Your task to perform on an android device: Open Wikipedia Image 0: 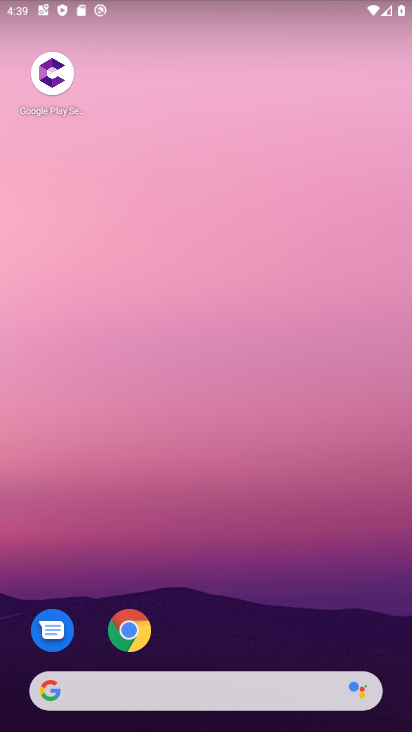
Step 0: drag from (232, 608) to (230, 225)
Your task to perform on an android device: Open Wikipedia Image 1: 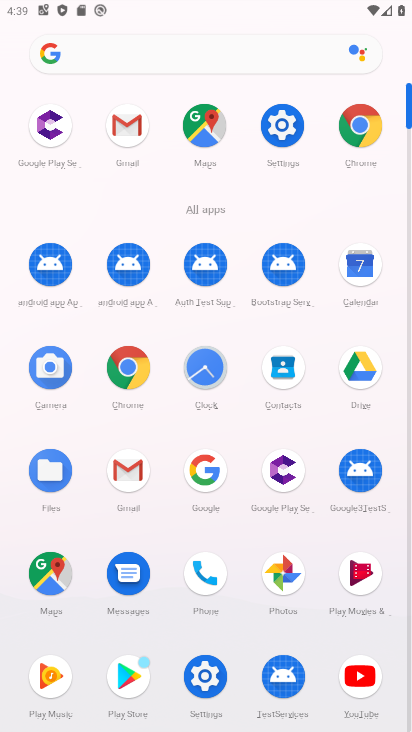
Step 1: click (363, 118)
Your task to perform on an android device: Open Wikipedia Image 2: 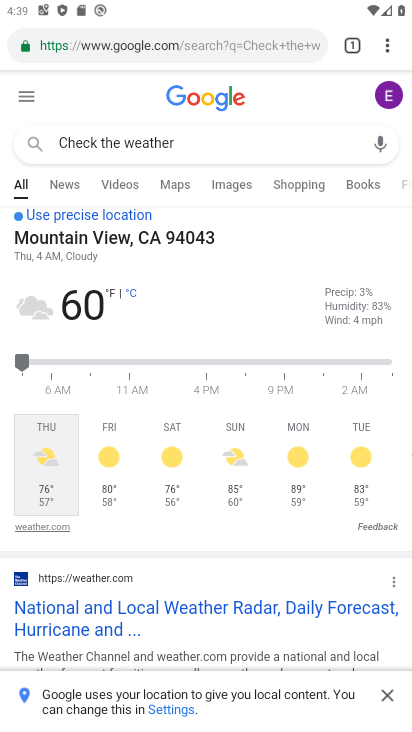
Step 2: click (378, 42)
Your task to perform on an android device: Open Wikipedia Image 3: 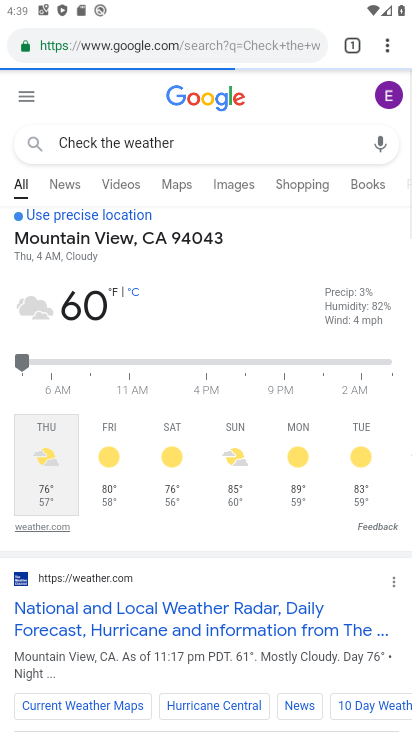
Step 3: click (390, 38)
Your task to perform on an android device: Open Wikipedia Image 4: 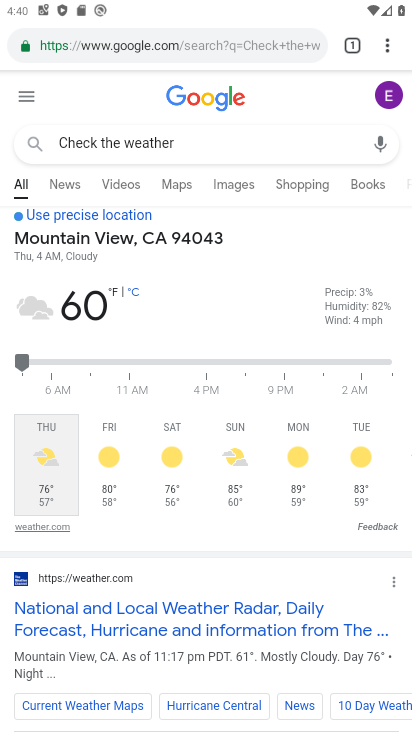
Step 4: click (387, 40)
Your task to perform on an android device: Open Wikipedia Image 5: 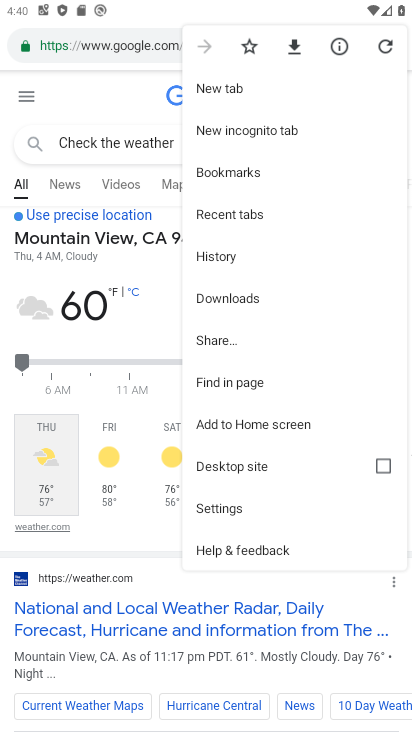
Step 5: click (230, 77)
Your task to perform on an android device: Open Wikipedia Image 6: 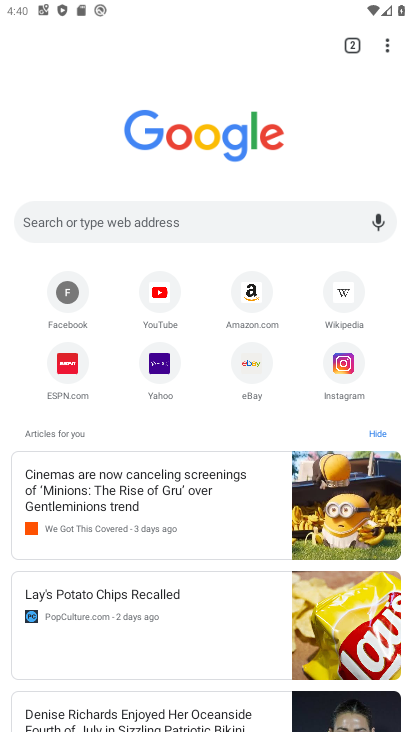
Step 6: click (327, 289)
Your task to perform on an android device: Open Wikipedia Image 7: 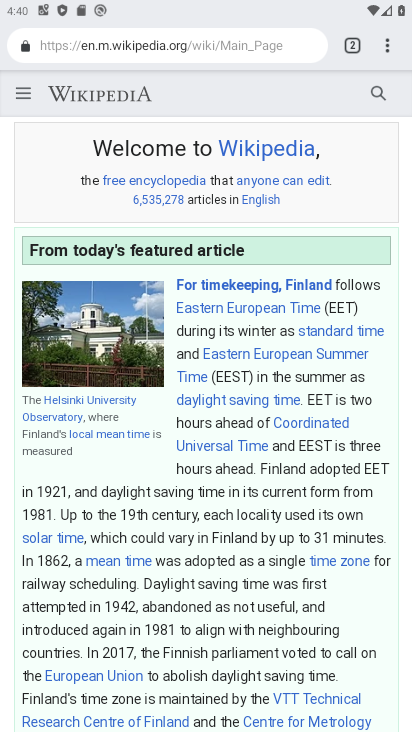
Step 7: task complete